Your task to perform on an android device: Open calendar and show me the first week of next month Image 0: 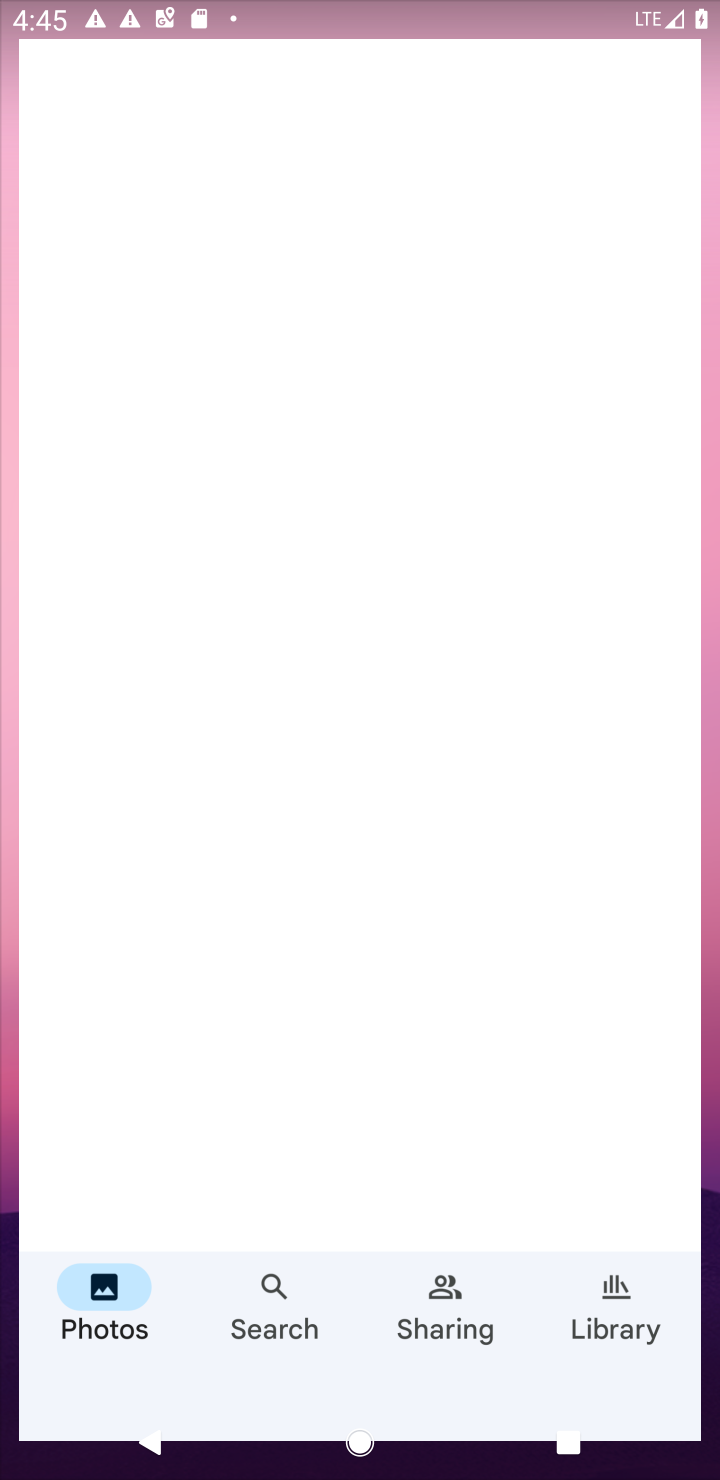
Step 0: press home button
Your task to perform on an android device: Open calendar and show me the first week of next month Image 1: 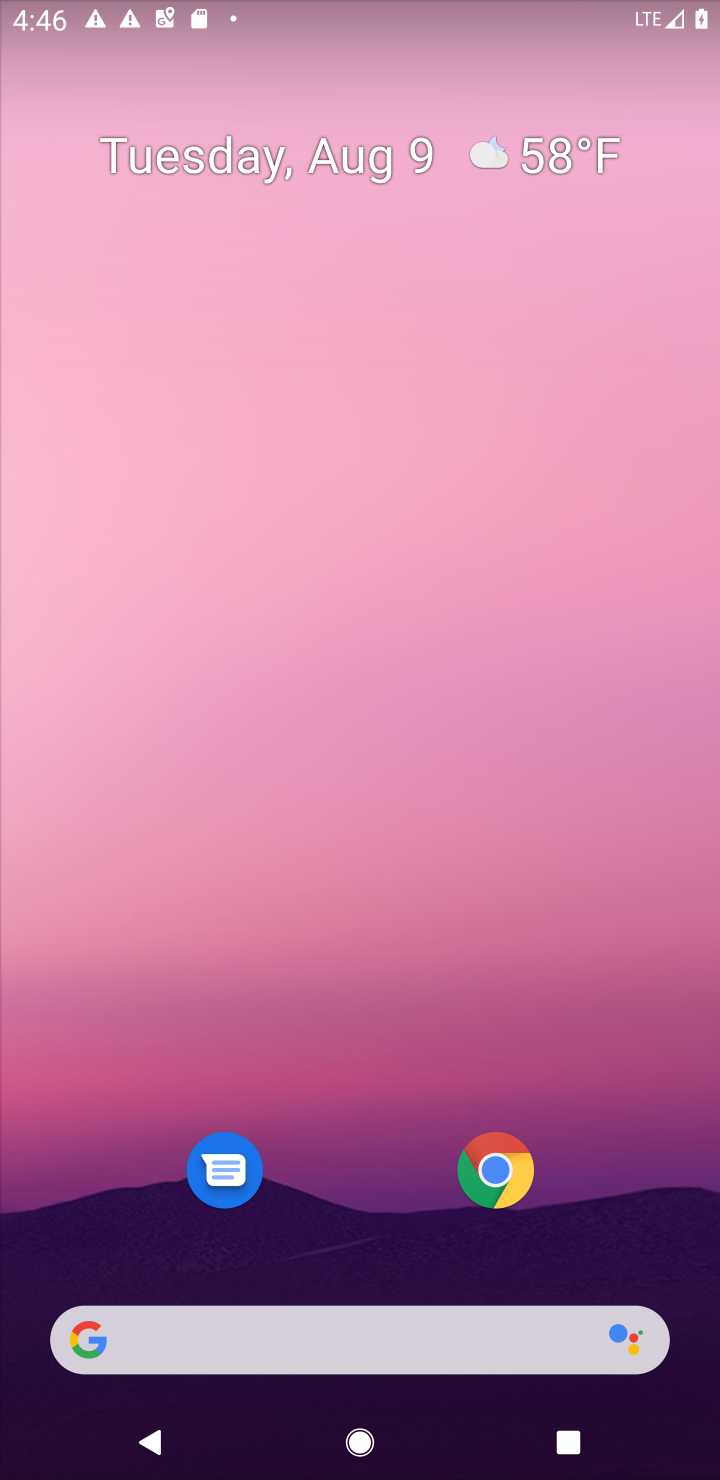
Step 1: drag from (360, 1101) to (575, 36)
Your task to perform on an android device: Open calendar and show me the first week of next month Image 2: 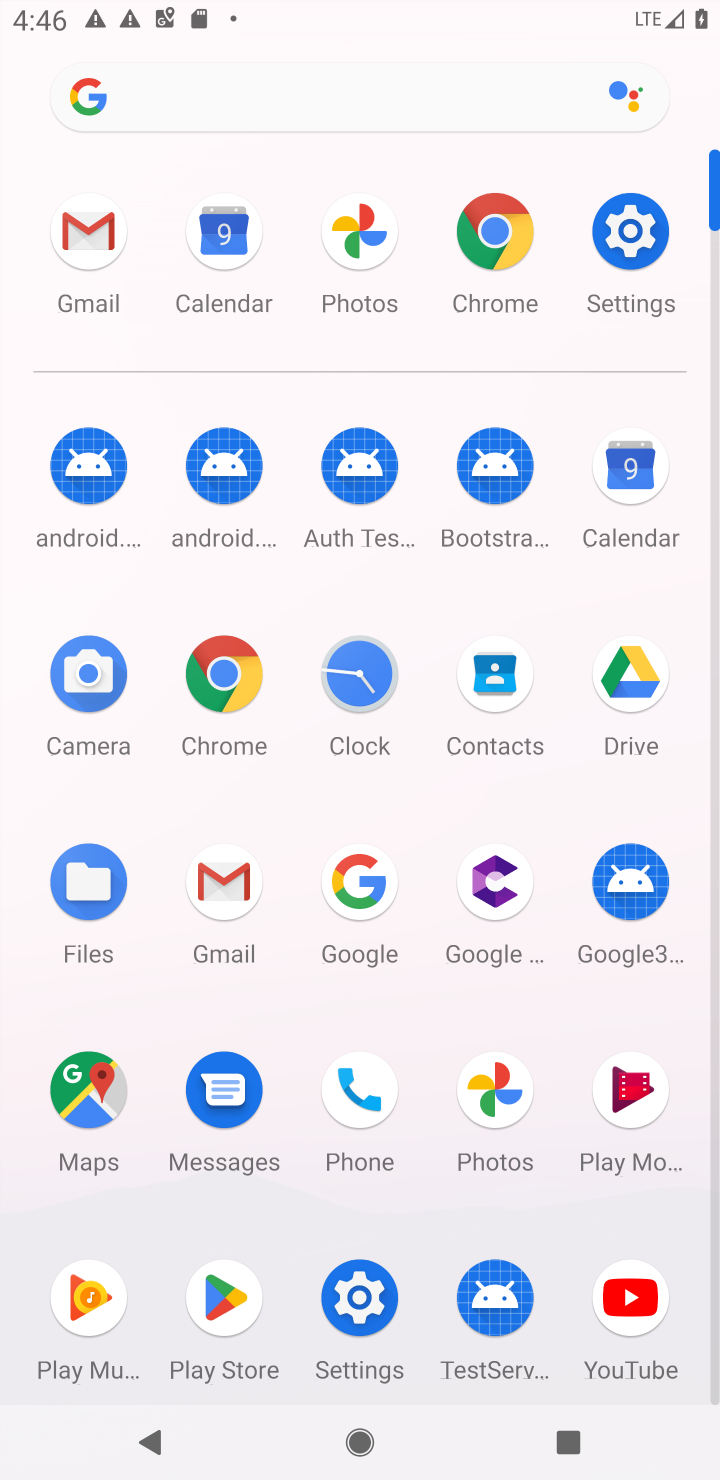
Step 2: click (609, 480)
Your task to perform on an android device: Open calendar and show me the first week of next month Image 3: 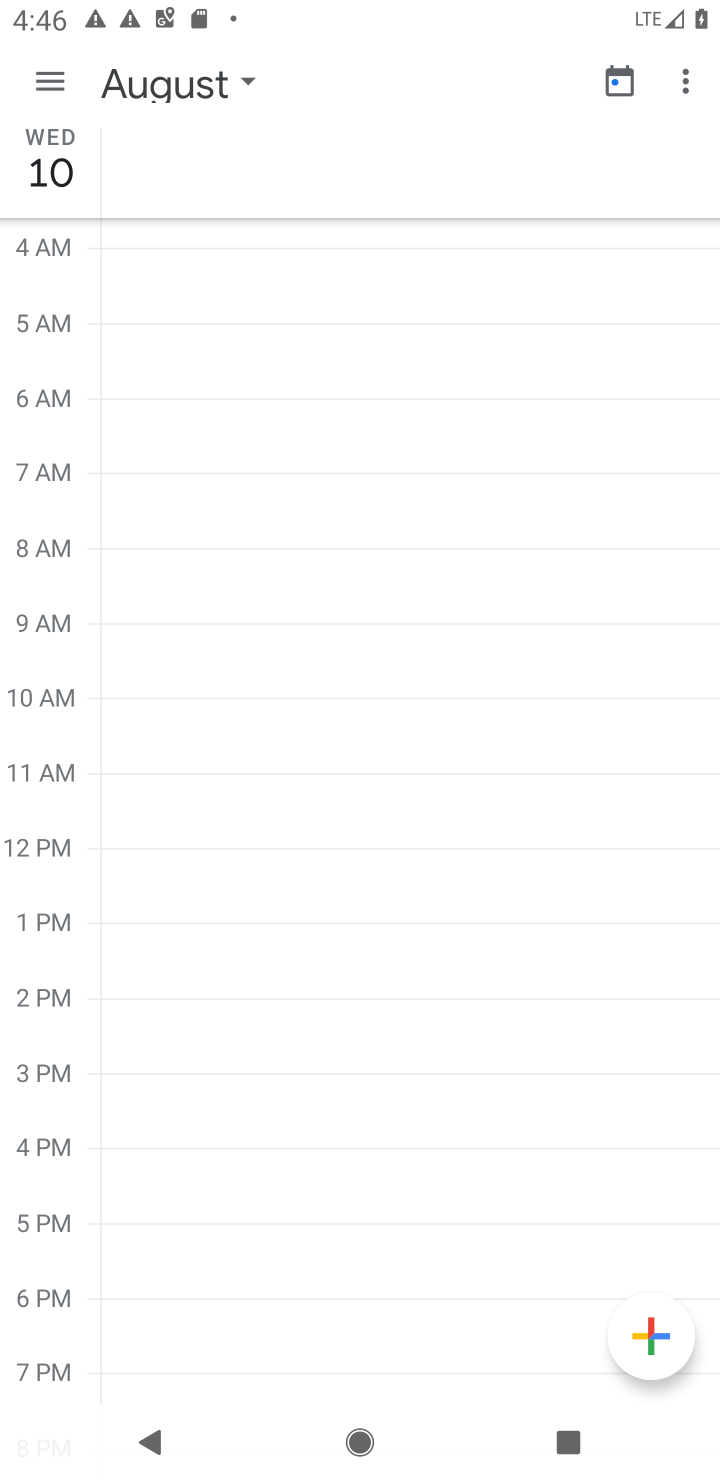
Step 3: click (67, 85)
Your task to perform on an android device: Open calendar and show me the first week of next month Image 4: 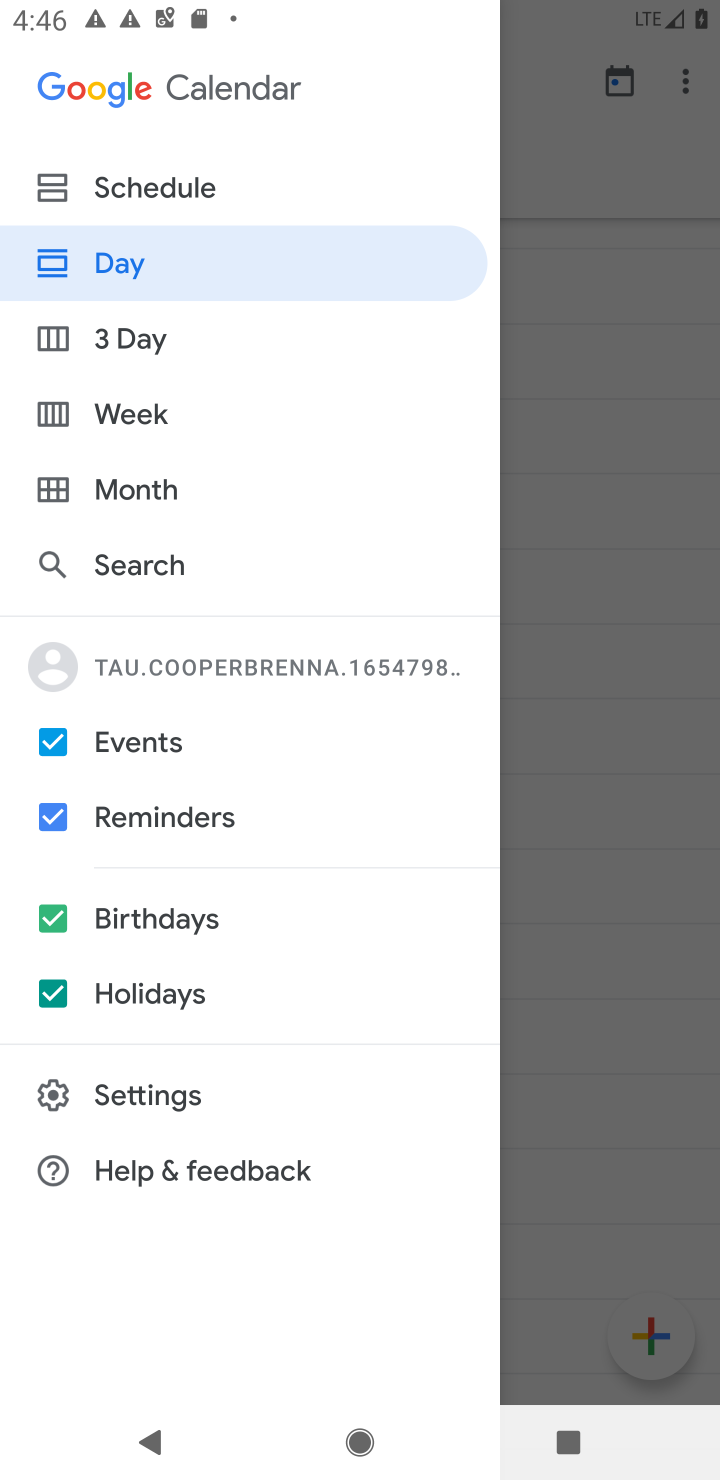
Step 4: click (140, 491)
Your task to perform on an android device: Open calendar and show me the first week of next month Image 5: 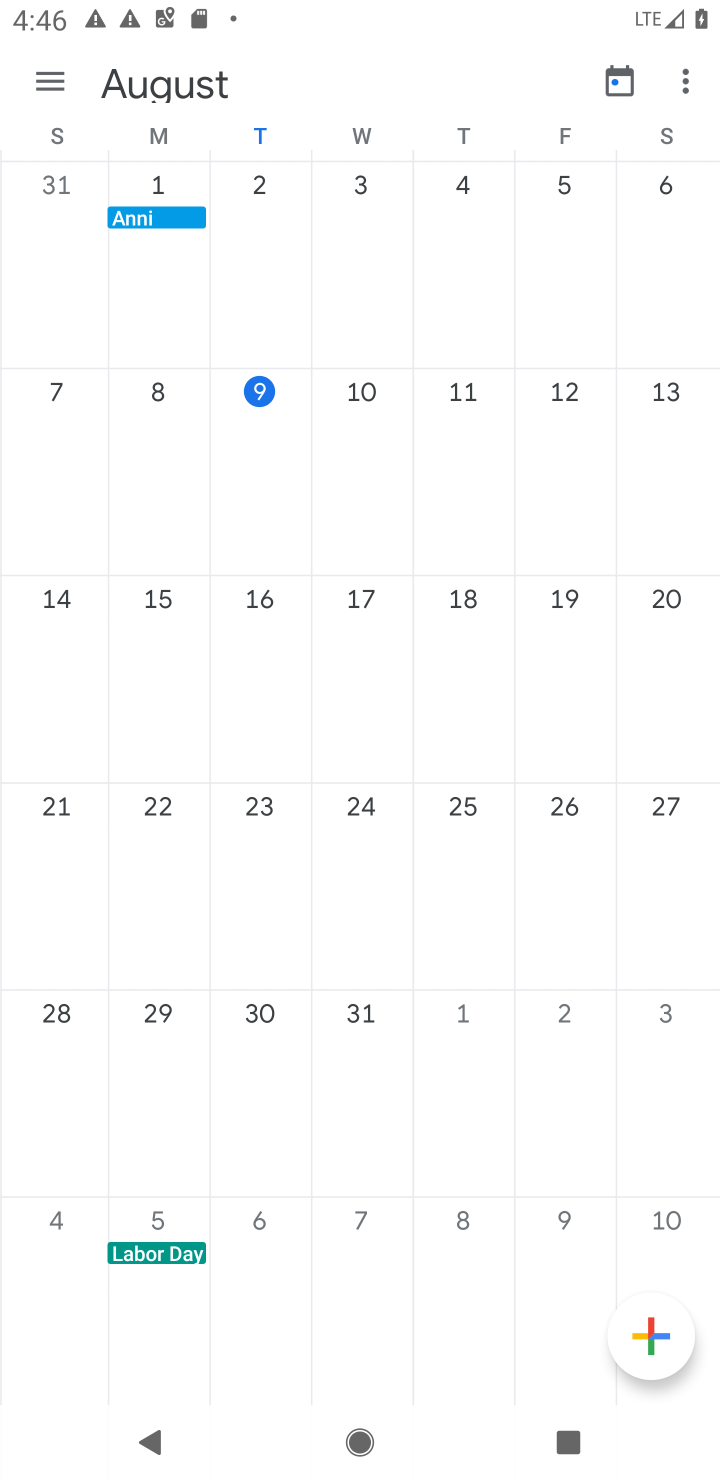
Step 5: task complete